Your task to perform on an android device: add a contact Image 0: 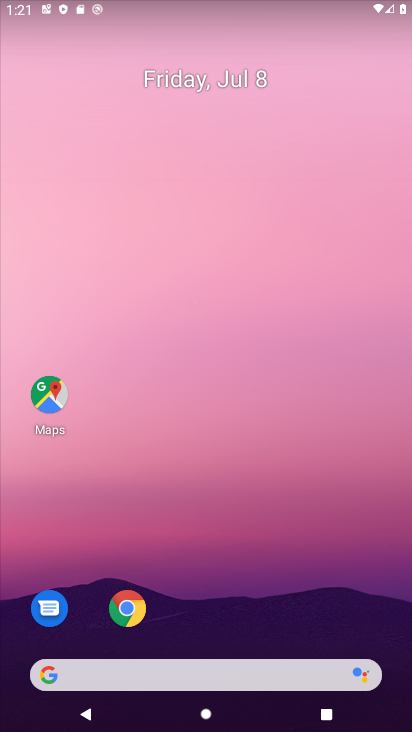
Step 0: drag from (383, 614) to (331, 84)
Your task to perform on an android device: add a contact Image 1: 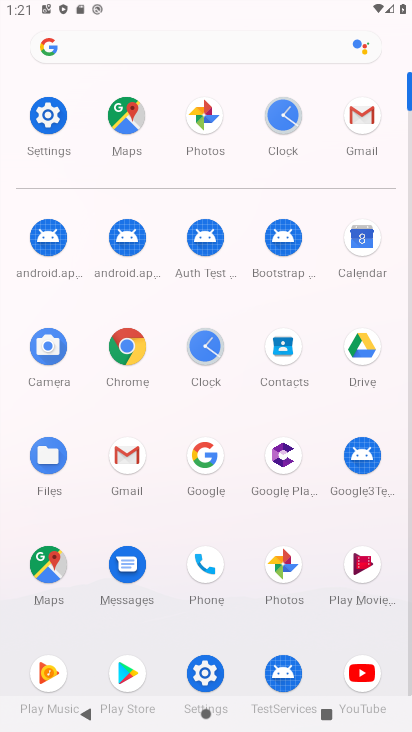
Step 1: click (282, 346)
Your task to perform on an android device: add a contact Image 2: 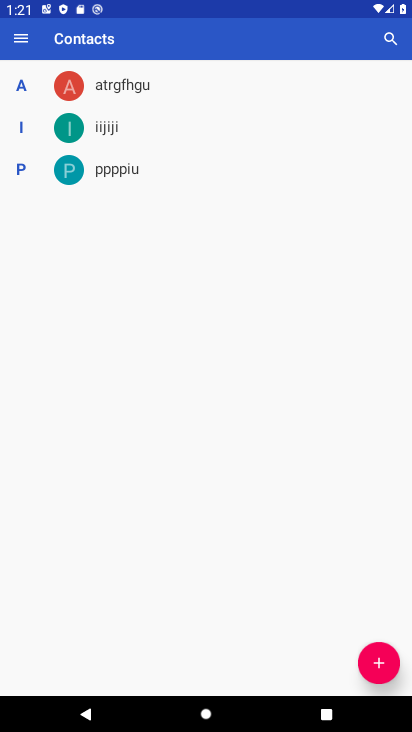
Step 2: click (377, 663)
Your task to perform on an android device: add a contact Image 3: 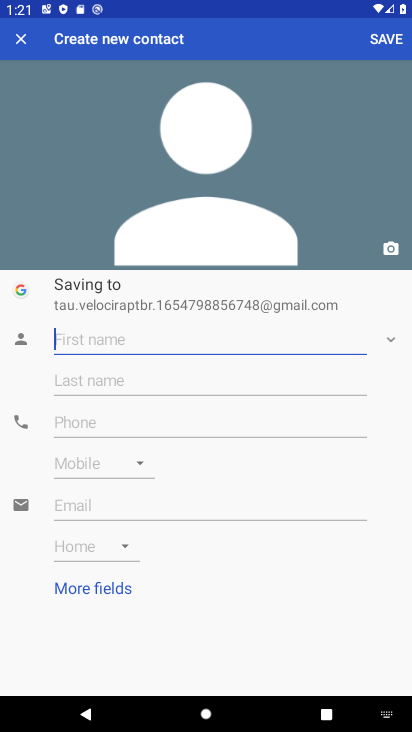
Step 3: type "iykykgf"
Your task to perform on an android device: add a contact Image 4: 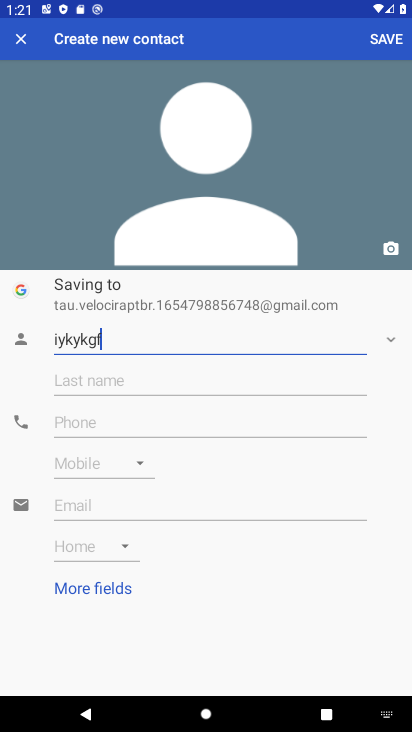
Step 4: click (77, 429)
Your task to perform on an android device: add a contact Image 5: 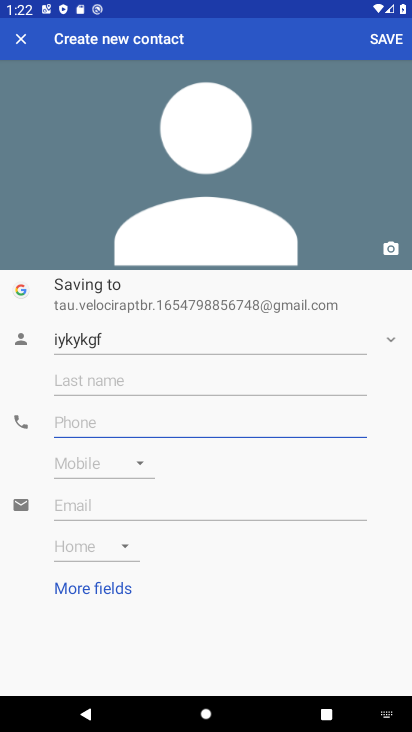
Step 5: type "09876544567"
Your task to perform on an android device: add a contact Image 6: 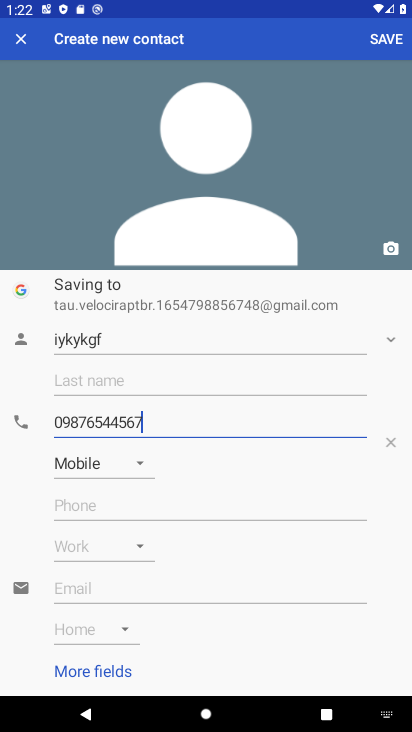
Step 6: click (135, 467)
Your task to perform on an android device: add a contact Image 7: 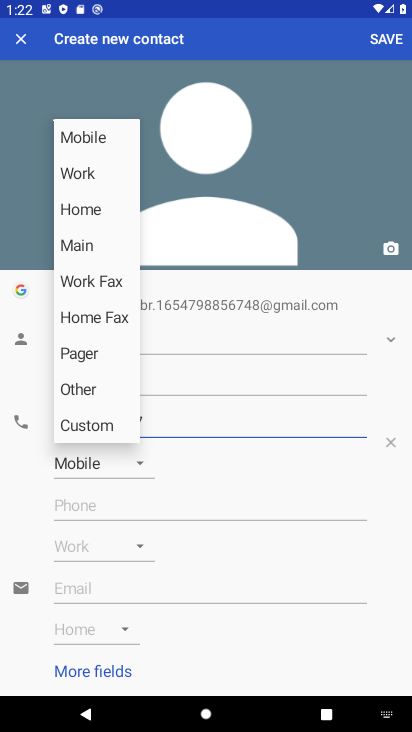
Step 7: click (74, 175)
Your task to perform on an android device: add a contact Image 8: 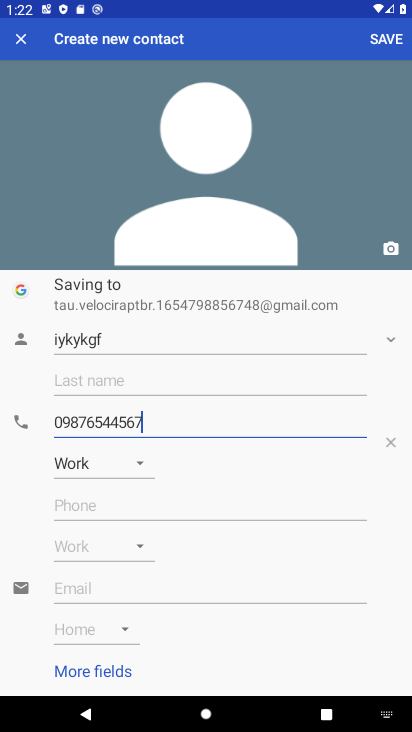
Step 8: click (383, 38)
Your task to perform on an android device: add a contact Image 9: 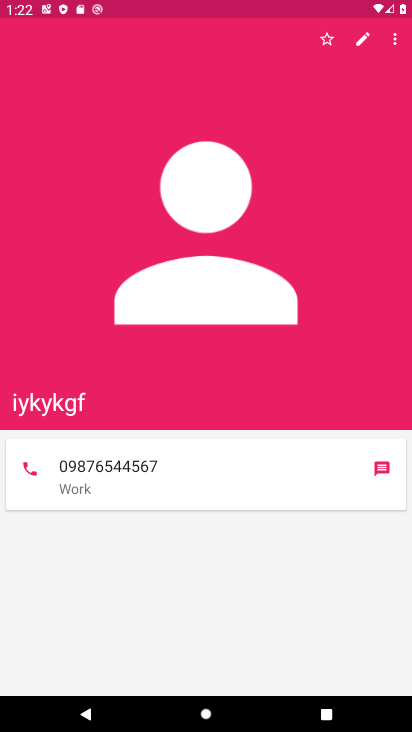
Step 9: task complete